Your task to perform on an android device: open app "DoorDash - Food Delivery" (install if not already installed) and go to login screen Image 0: 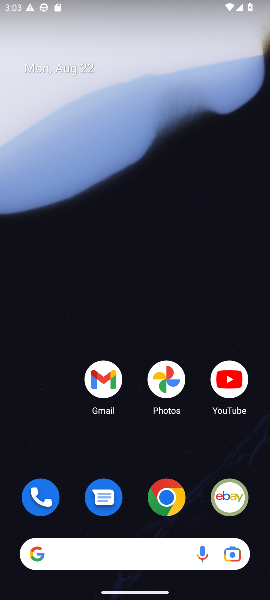
Step 0: drag from (163, 453) to (161, 63)
Your task to perform on an android device: open app "DoorDash - Food Delivery" (install if not already installed) and go to login screen Image 1: 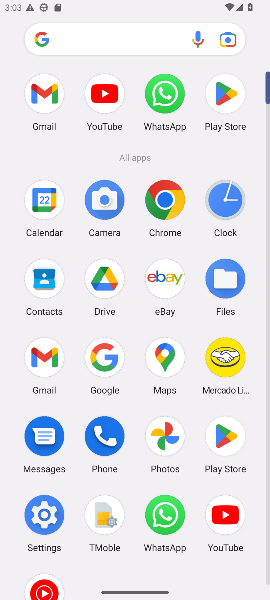
Step 1: click (218, 89)
Your task to perform on an android device: open app "DoorDash - Food Delivery" (install if not already installed) and go to login screen Image 2: 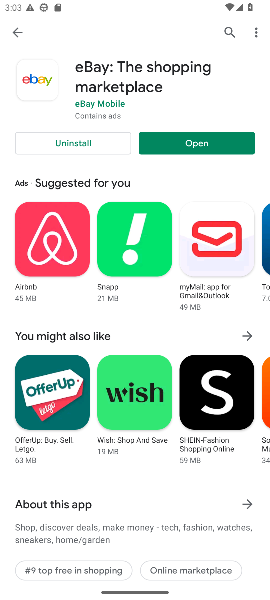
Step 2: click (226, 29)
Your task to perform on an android device: open app "DoorDash - Food Delivery" (install if not already installed) and go to login screen Image 3: 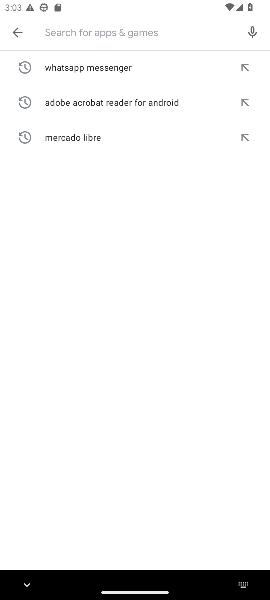
Step 3: type "DoorDash - Food Delivery"
Your task to perform on an android device: open app "DoorDash - Food Delivery" (install if not already installed) and go to login screen Image 4: 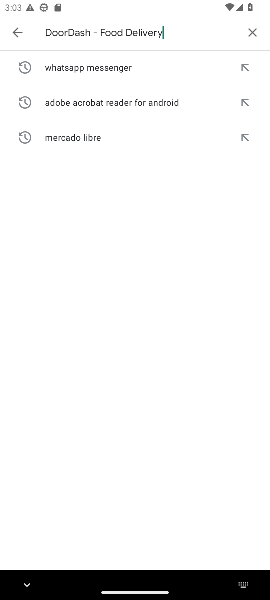
Step 4: type ""
Your task to perform on an android device: open app "DoorDash - Food Delivery" (install if not already installed) and go to login screen Image 5: 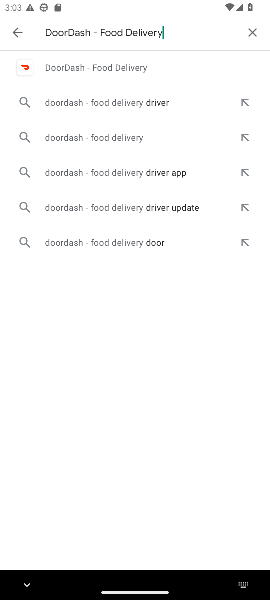
Step 5: click (106, 71)
Your task to perform on an android device: open app "DoorDash - Food Delivery" (install if not already installed) and go to login screen Image 6: 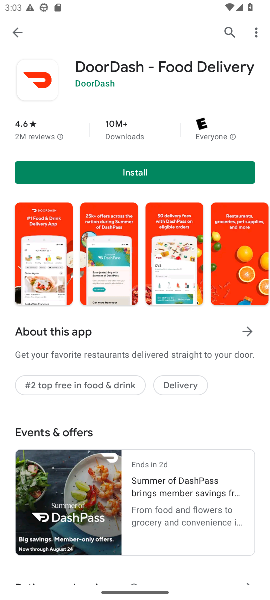
Step 6: click (138, 170)
Your task to perform on an android device: open app "DoorDash - Food Delivery" (install if not already installed) and go to login screen Image 7: 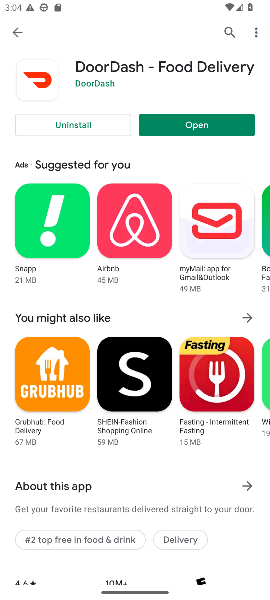
Step 7: click (220, 118)
Your task to perform on an android device: open app "DoorDash - Food Delivery" (install if not already installed) and go to login screen Image 8: 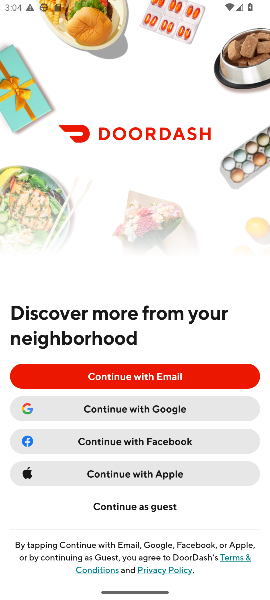
Step 8: task complete